Your task to perform on an android device: What's the weather going to be this weekend? Image 0: 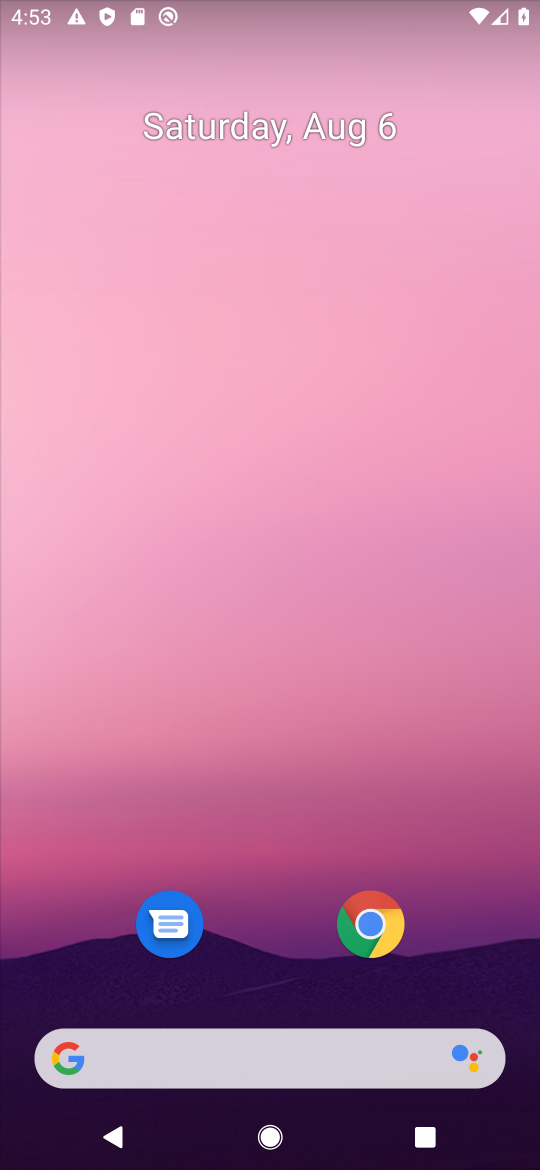
Step 0: drag from (240, 710) to (293, 92)
Your task to perform on an android device: What's the weather going to be this weekend? Image 1: 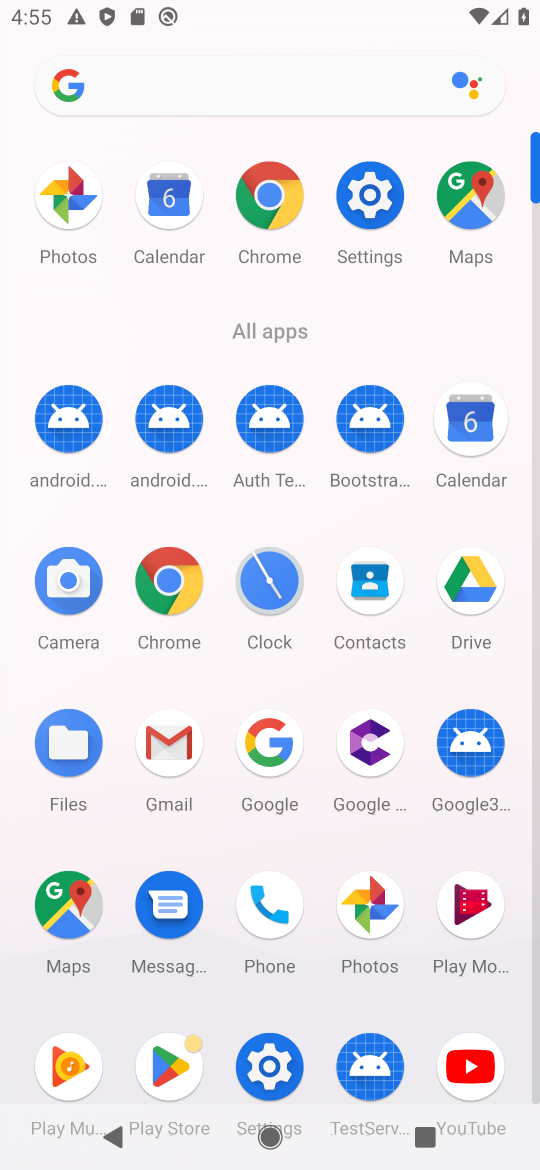
Step 1: type "What's the weather going to be this weekend?"
Your task to perform on an android device: What's the weather going to be this weekend? Image 2: 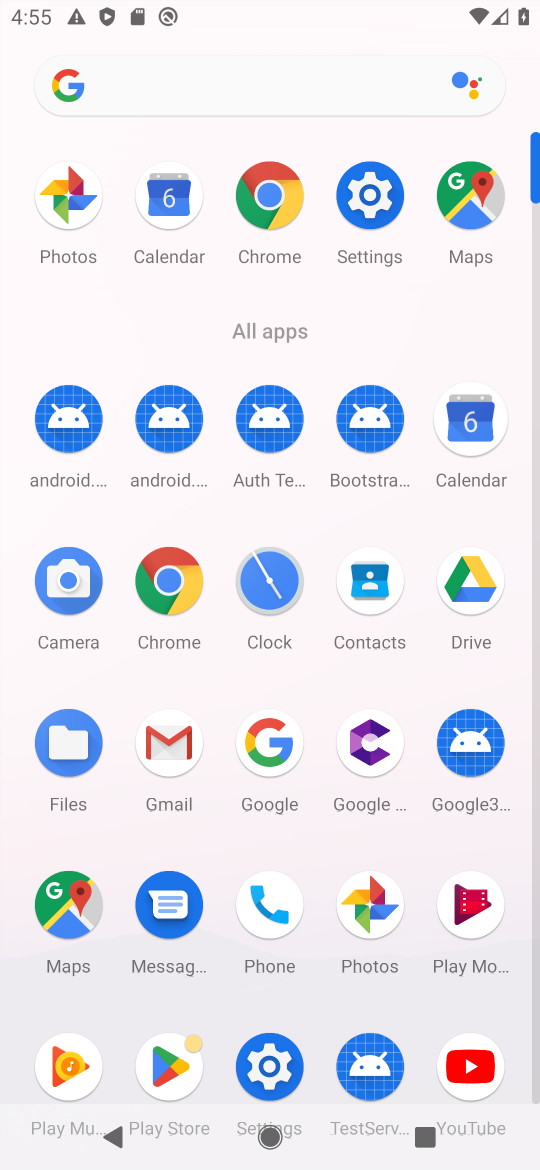
Step 2: click (312, 81)
Your task to perform on an android device: What's the weather going to be this weekend? Image 3: 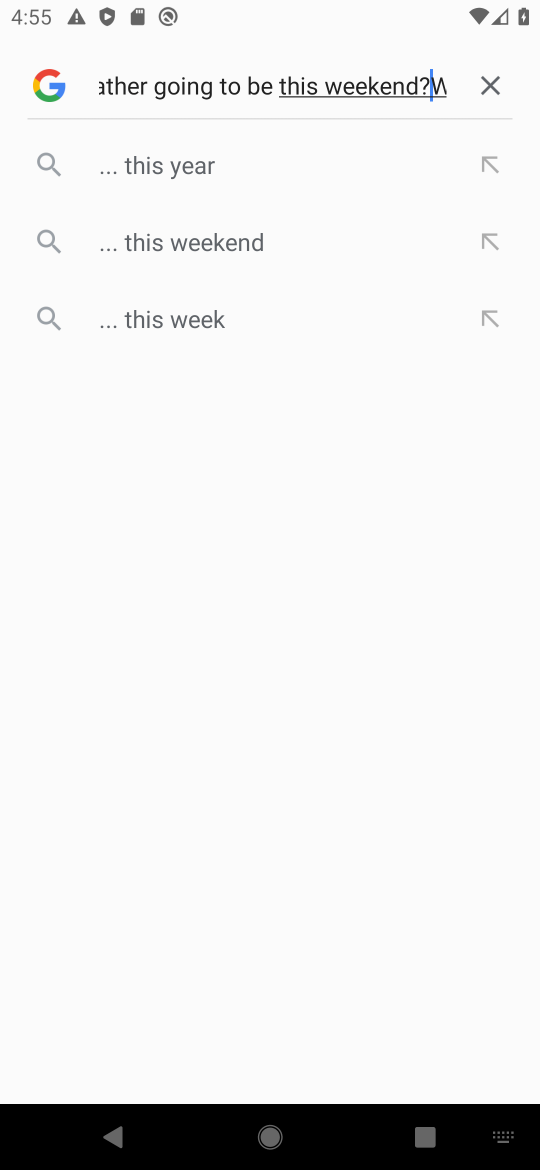
Step 3: type ""
Your task to perform on an android device: What's the weather going to be this weekend? Image 4: 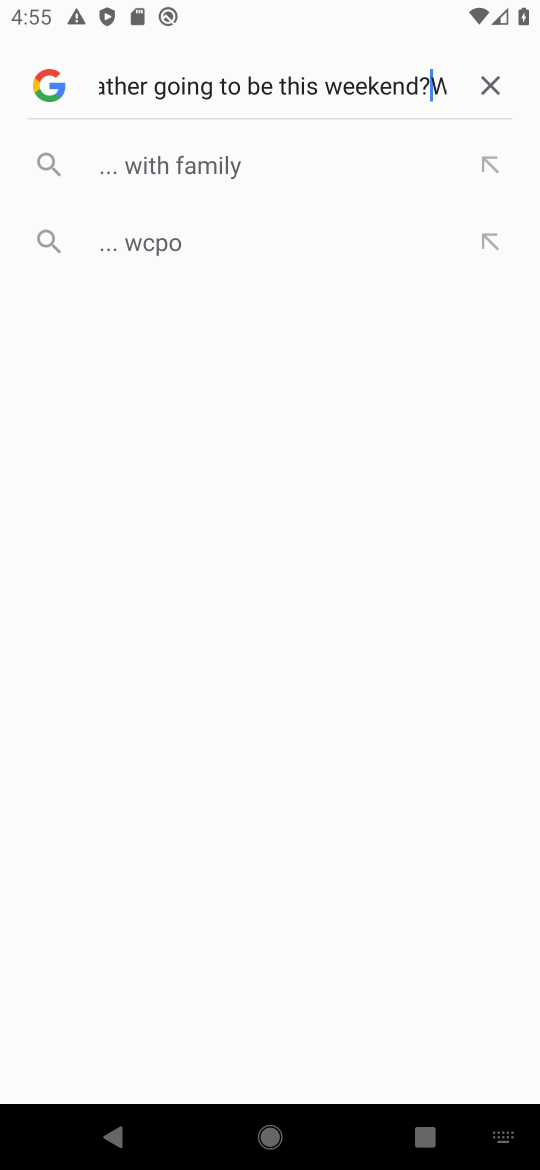
Step 4: click (313, 86)
Your task to perform on an android device: What's the weather going to be this weekend? Image 5: 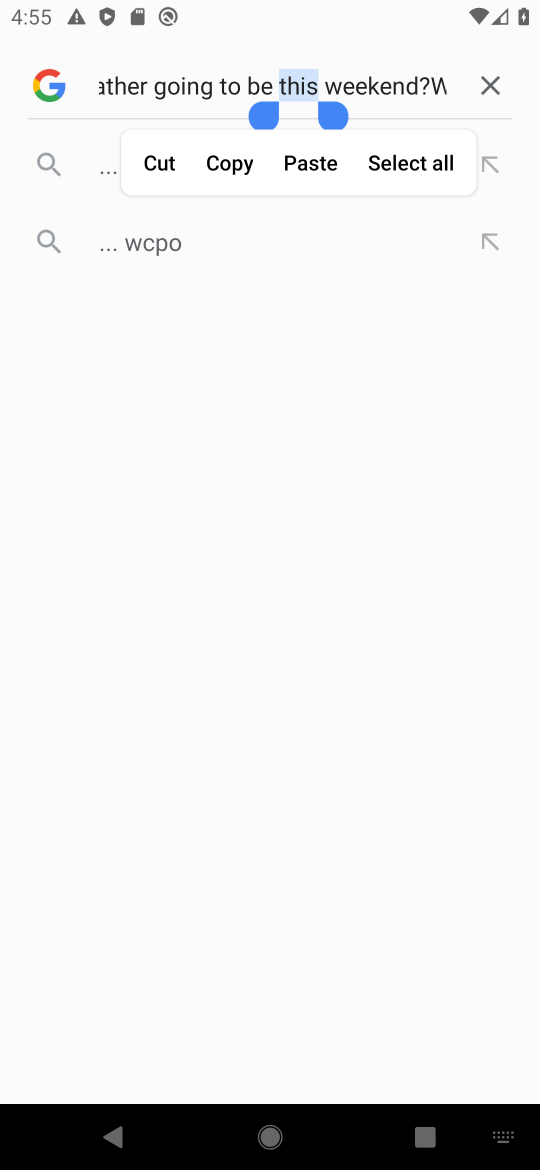
Step 5: click (477, 77)
Your task to perform on an android device: What's the weather going to be this weekend? Image 6: 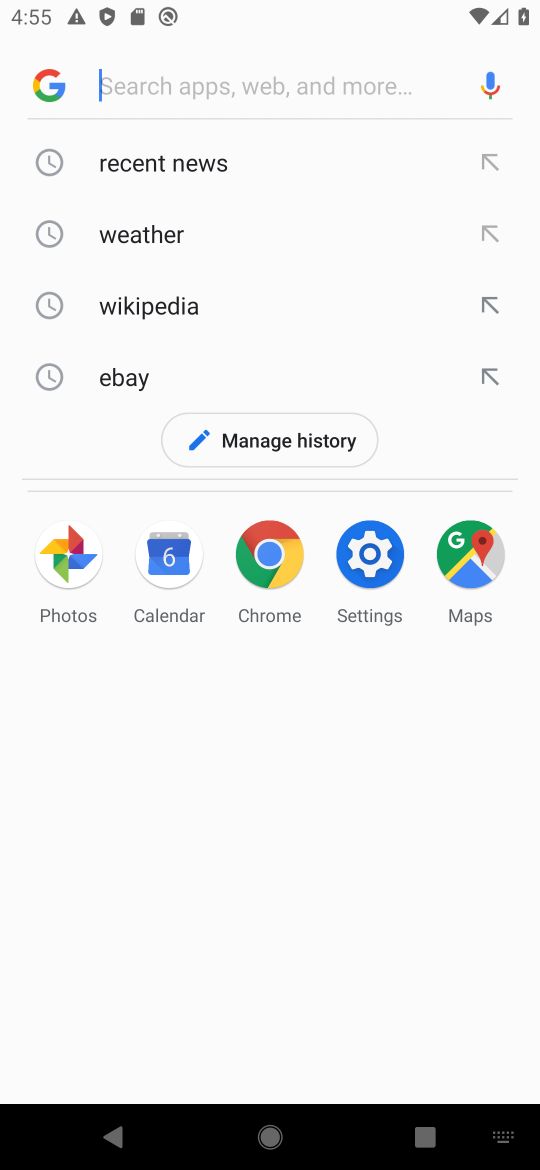
Step 6: type "What's the weather going to be this weekend?"
Your task to perform on an android device: What's the weather going to be this weekend? Image 7: 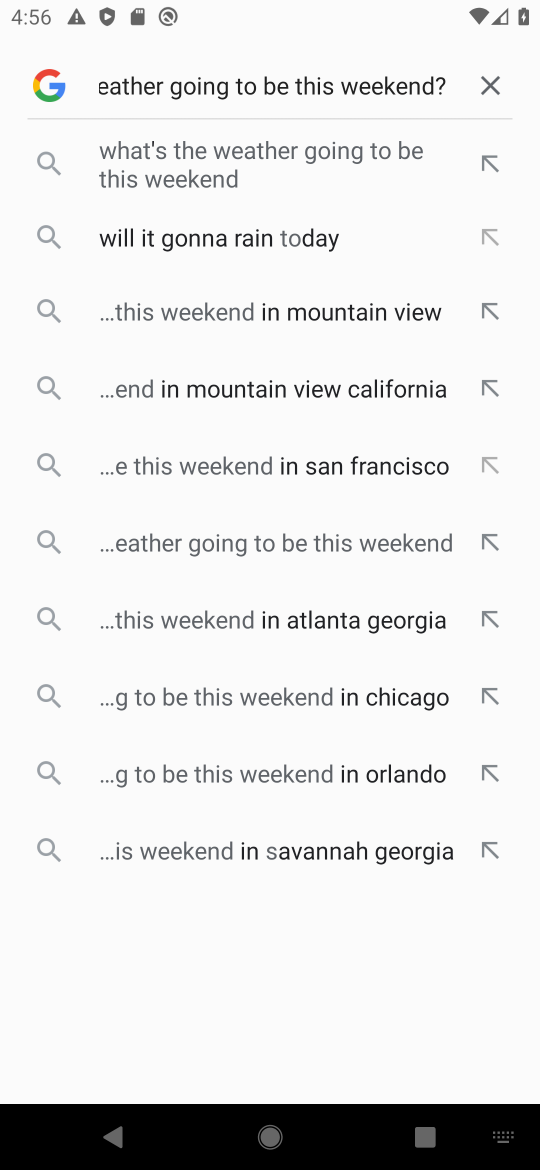
Step 7: press enter
Your task to perform on an android device: What's the weather going to be this weekend? Image 8: 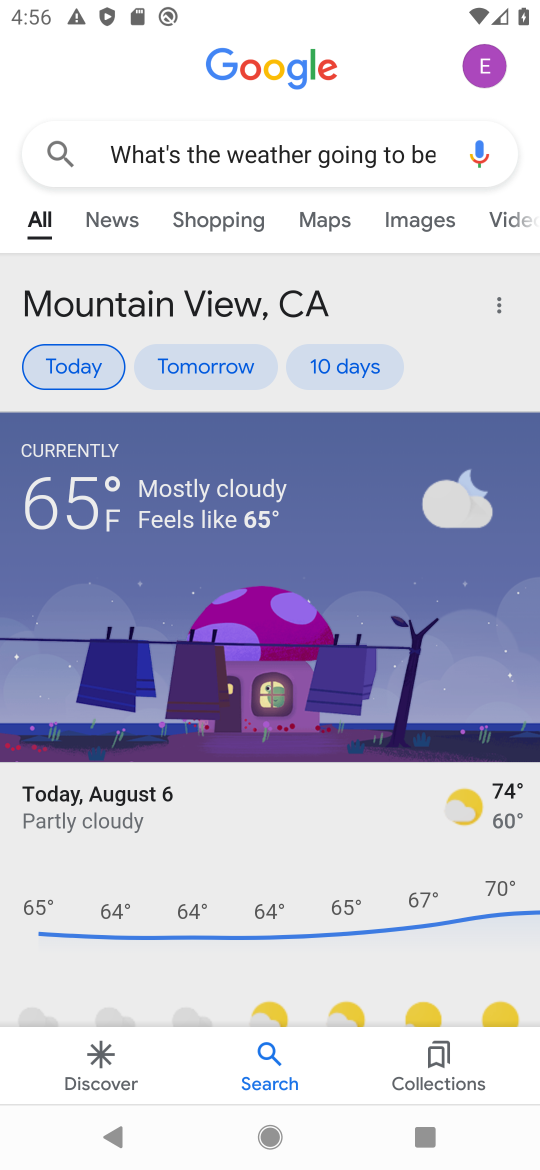
Step 8: task complete